Your task to perform on an android device: open a new tab in the chrome app Image 0: 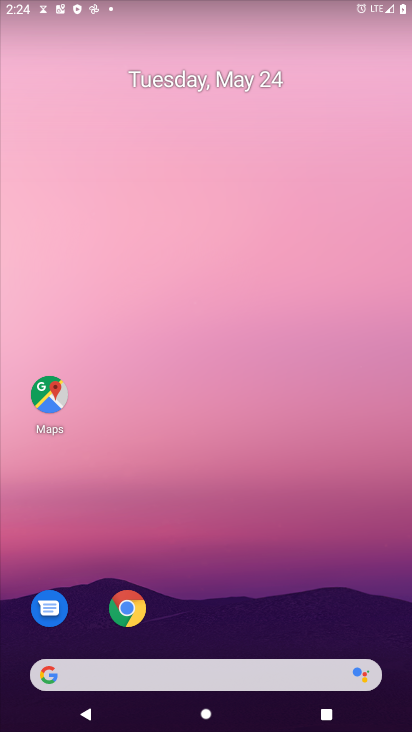
Step 0: drag from (219, 688) to (163, 135)
Your task to perform on an android device: open a new tab in the chrome app Image 1: 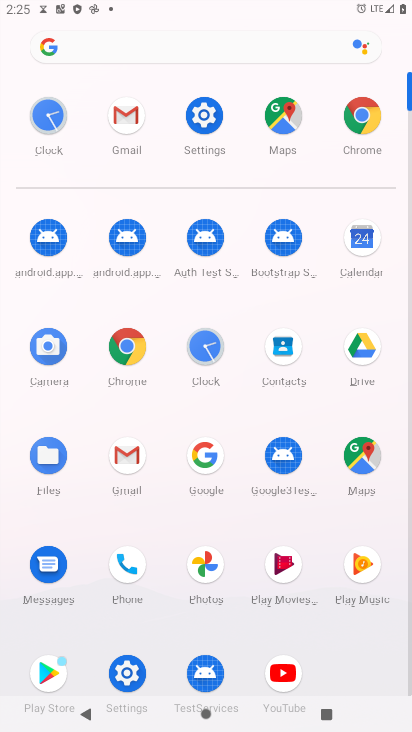
Step 1: click (365, 117)
Your task to perform on an android device: open a new tab in the chrome app Image 2: 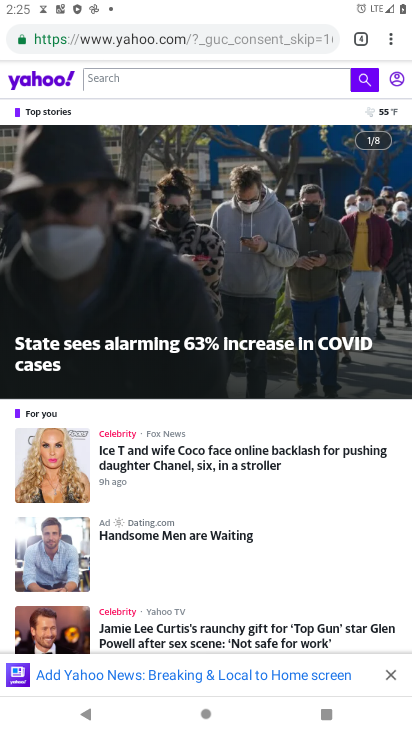
Step 2: click (384, 48)
Your task to perform on an android device: open a new tab in the chrome app Image 3: 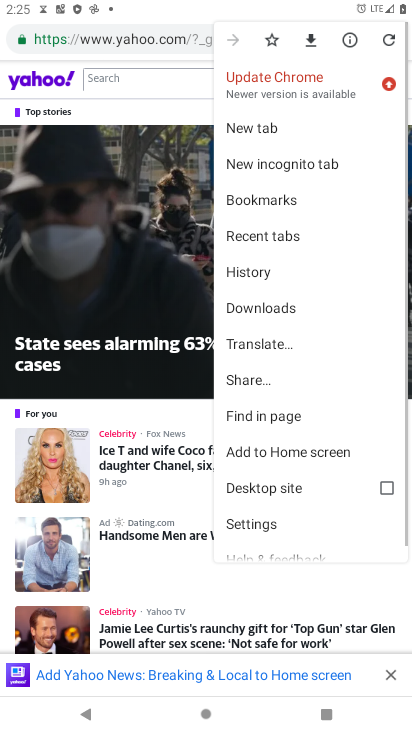
Step 3: click (264, 124)
Your task to perform on an android device: open a new tab in the chrome app Image 4: 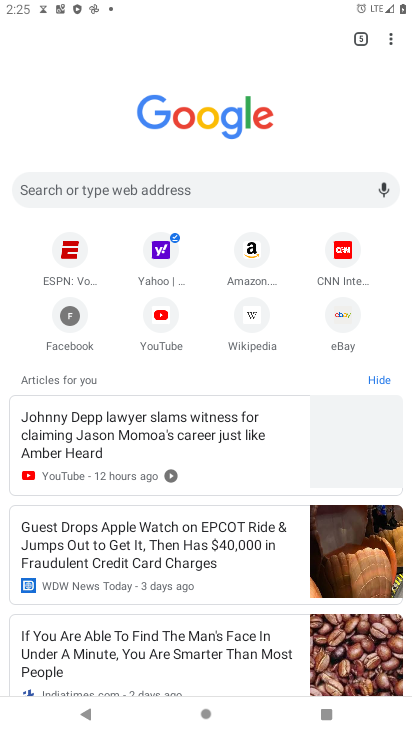
Step 4: task complete